Your task to perform on an android device: delete browsing data in the chrome app Image 0: 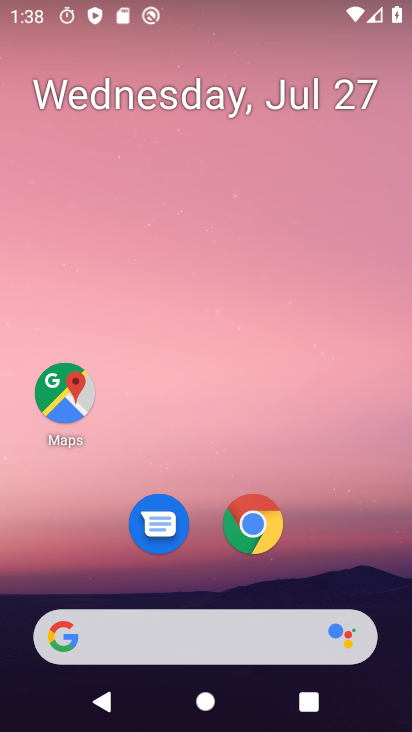
Step 0: click (265, 526)
Your task to perform on an android device: delete browsing data in the chrome app Image 1: 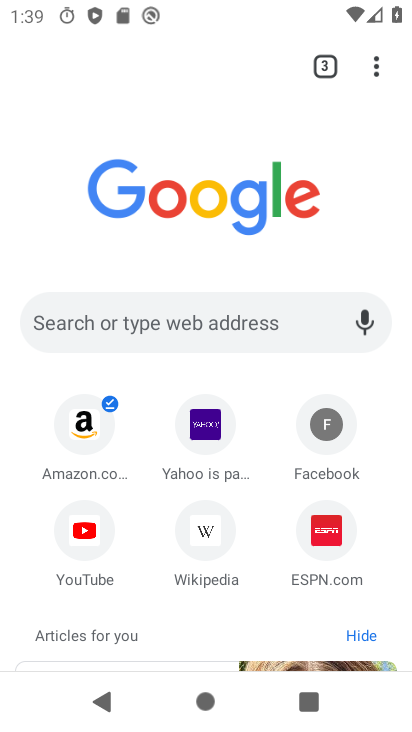
Step 1: click (372, 64)
Your task to perform on an android device: delete browsing data in the chrome app Image 2: 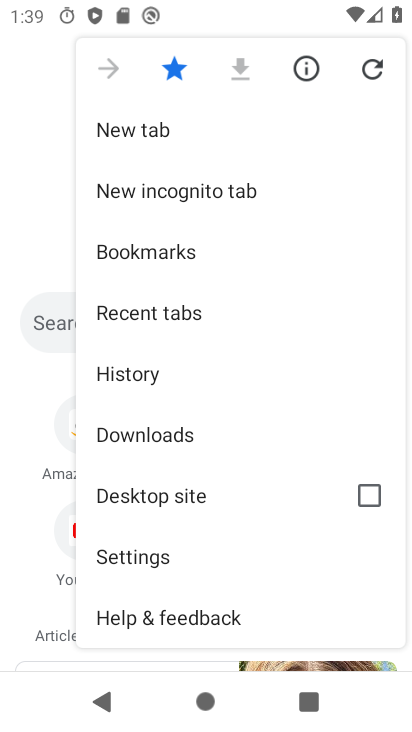
Step 2: click (142, 375)
Your task to perform on an android device: delete browsing data in the chrome app Image 3: 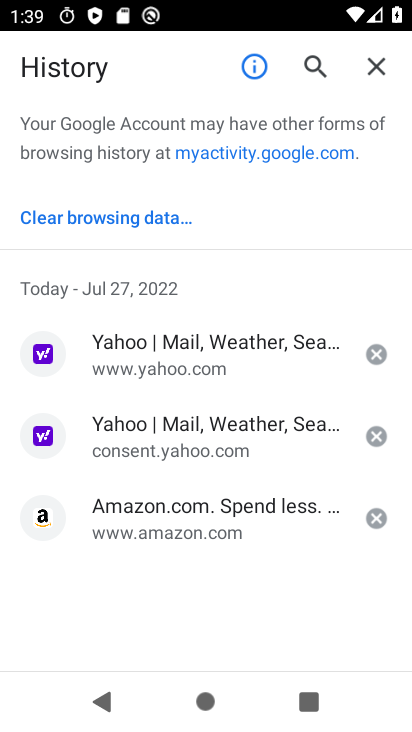
Step 3: click (162, 220)
Your task to perform on an android device: delete browsing data in the chrome app Image 4: 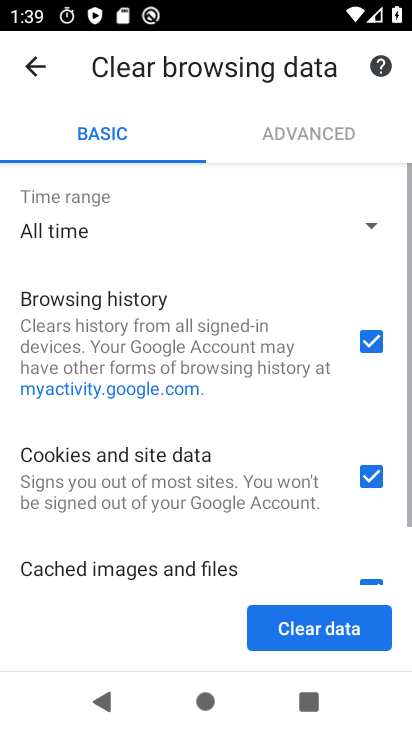
Step 4: click (328, 621)
Your task to perform on an android device: delete browsing data in the chrome app Image 5: 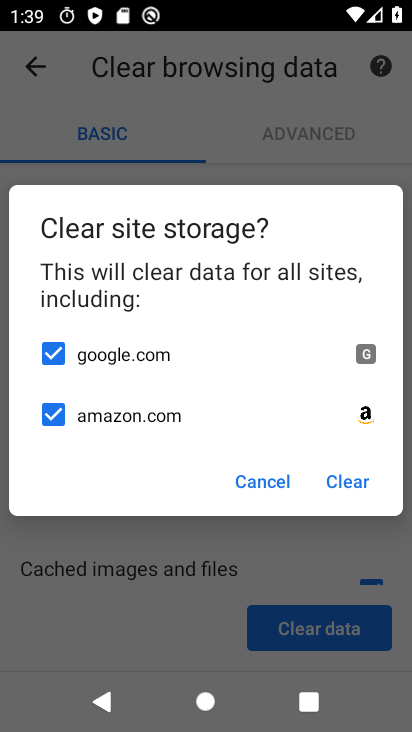
Step 5: click (356, 477)
Your task to perform on an android device: delete browsing data in the chrome app Image 6: 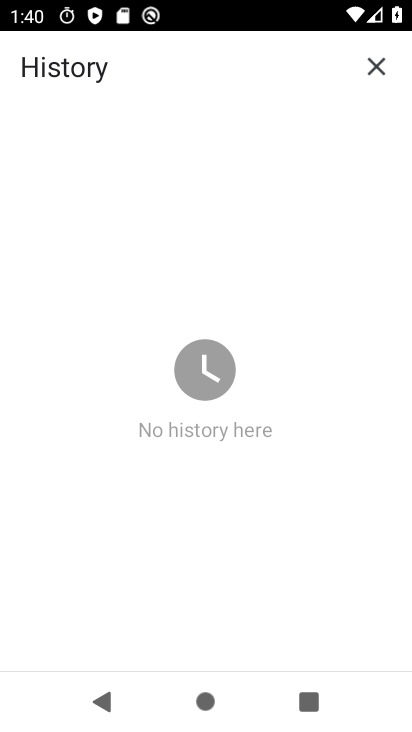
Step 6: task complete